Your task to perform on an android device: Search for Italian restaurants on Maps Image 0: 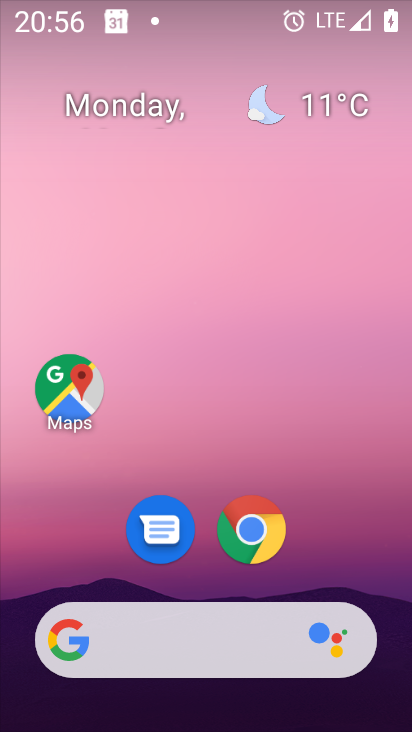
Step 0: click (89, 419)
Your task to perform on an android device: Search for Italian restaurants on Maps Image 1: 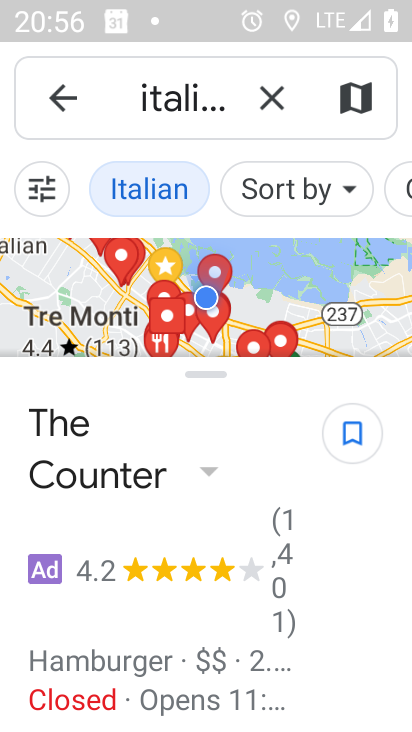
Step 1: task complete